Your task to perform on an android device: set default search engine in the chrome app Image 0: 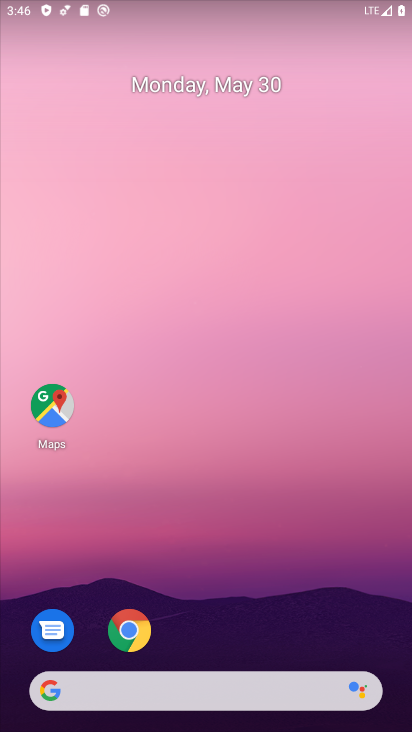
Step 0: click (127, 625)
Your task to perform on an android device: set default search engine in the chrome app Image 1: 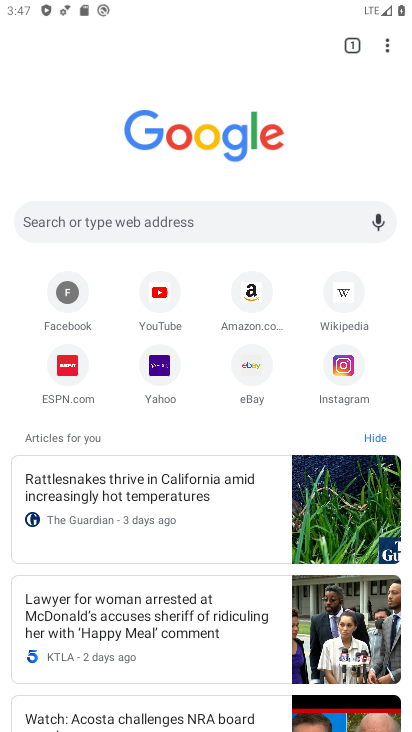
Step 1: click (383, 44)
Your task to perform on an android device: set default search engine in the chrome app Image 2: 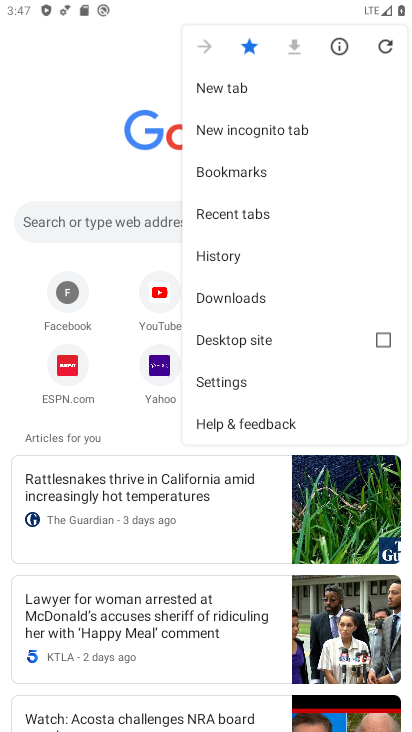
Step 2: click (255, 380)
Your task to perform on an android device: set default search engine in the chrome app Image 3: 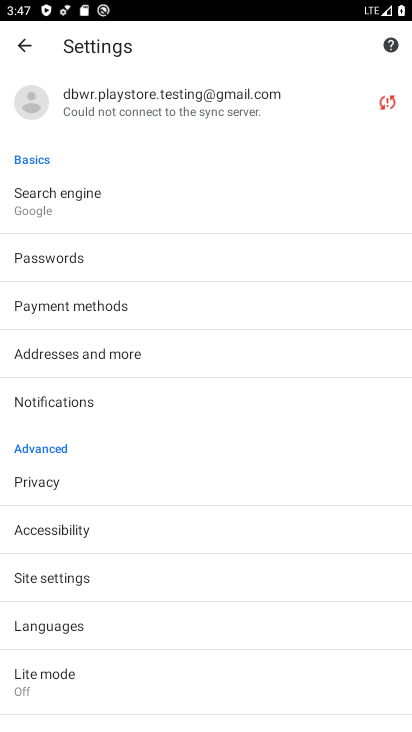
Step 3: click (64, 191)
Your task to perform on an android device: set default search engine in the chrome app Image 4: 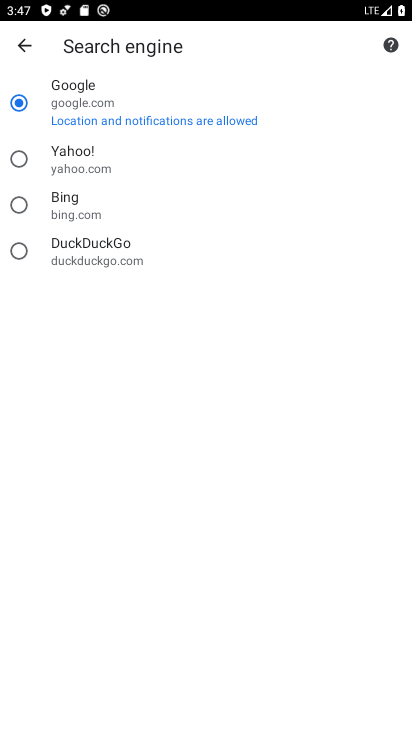
Step 4: click (45, 156)
Your task to perform on an android device: set default search engine in the chrome app Image 5: 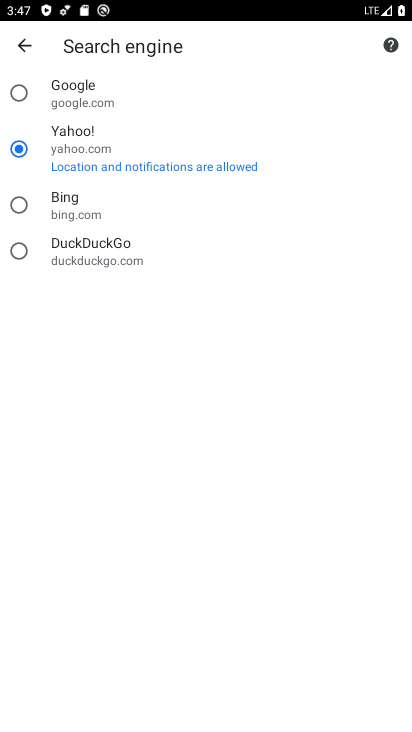
Step 5: task complete